Your task to perform on an android device: Show me popular videos on Youtube Image 0: 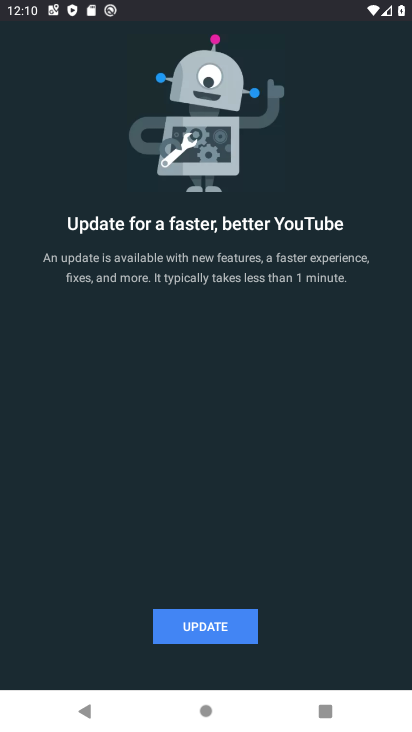
Step 0: press home button
Your task to perform on an android device: Show me popular videos on Youtube Image 1: 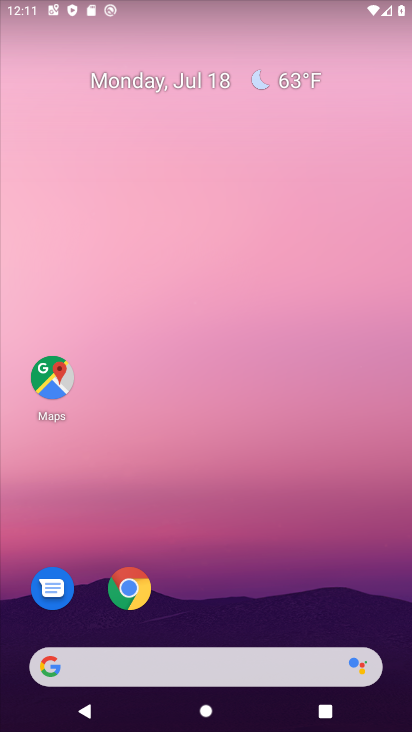
Step 1: drag from (236, 707) to (234, 139)
Your task to perform on an android device: Show me popular videos on Youtube Image 2: 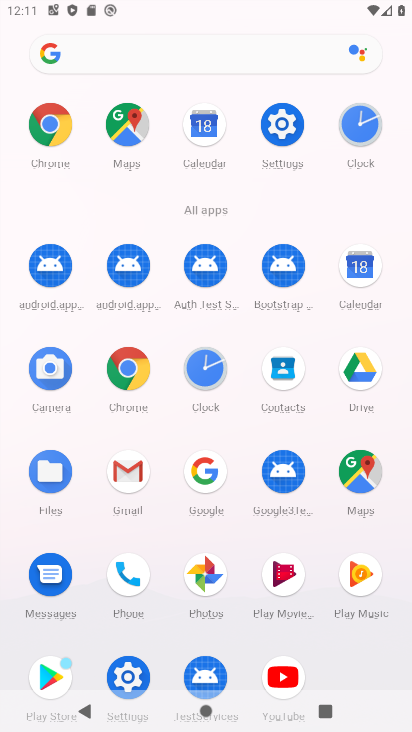
Step 2: click (292, 666)
Your task to perform on an android device: Show me popular videos on Youtube Image 3: 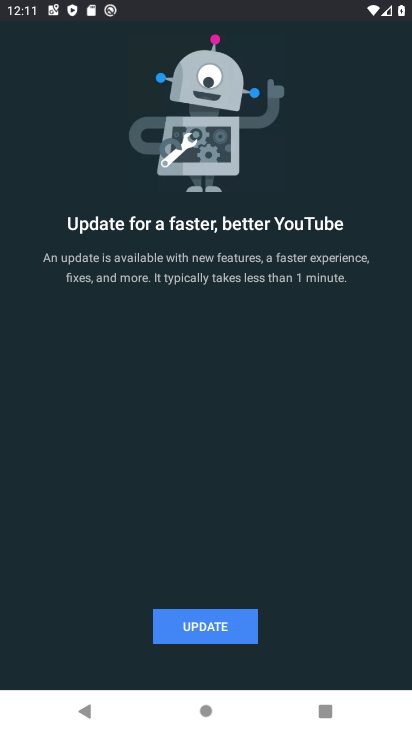
Step 3: task complete